Your task to perform on an android device: Go to location settings Image 0: 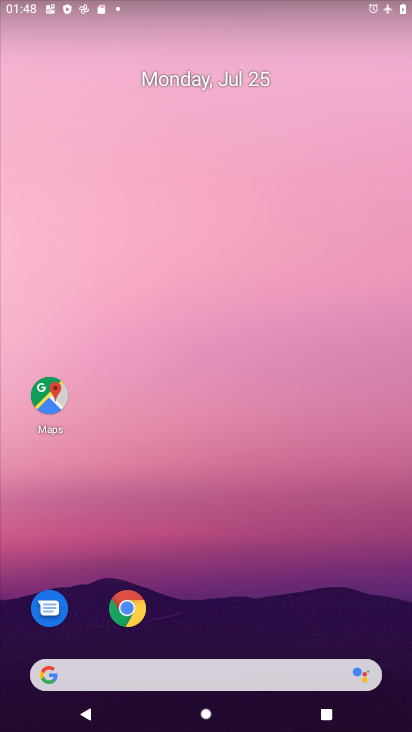
Step 0: drag from (190, 664) to (156, 25)
Your task to perform on an android device: Go to location settings Image 1: 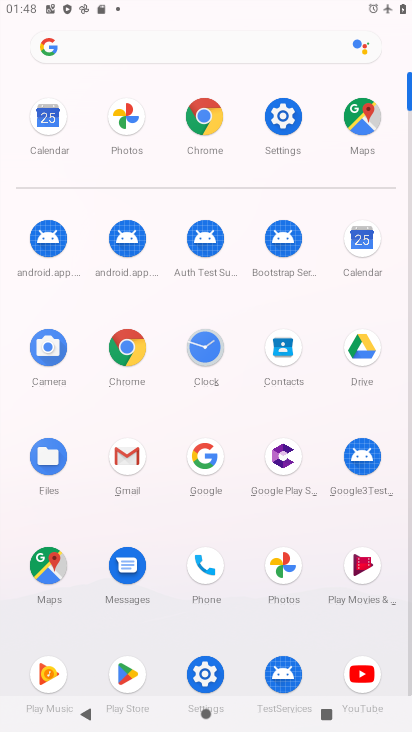
Step 1: click (280, 135)
Your task to perform on an android device: Go to location settings Image 2: 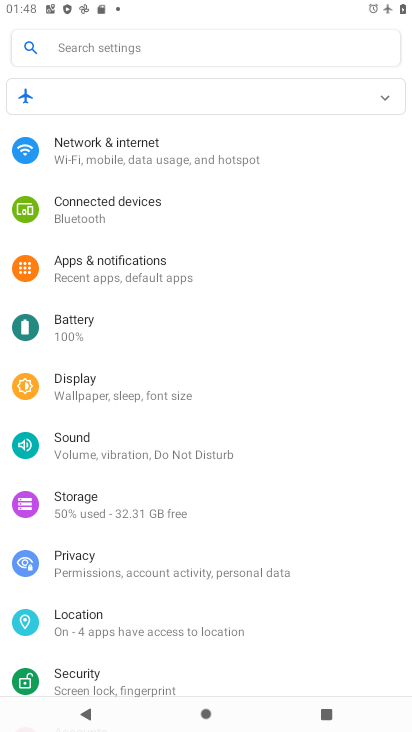
Step 2: click (112, 604)
Your task to perform on an android device: Go to location settings Image 3: 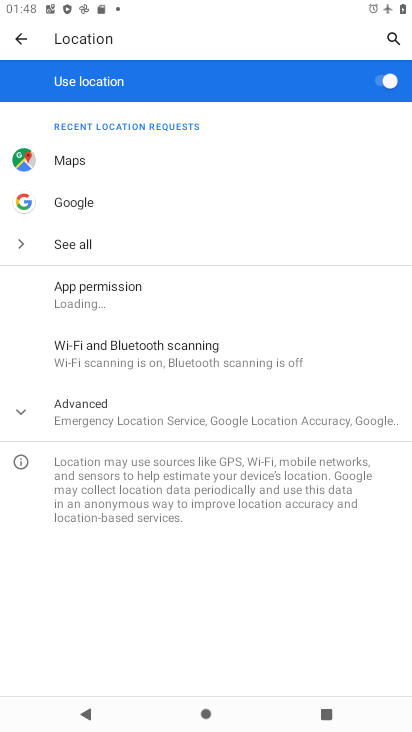
Step 3: click (107, 411)
Your task to perform on an android device: Go to location settings Image 4: 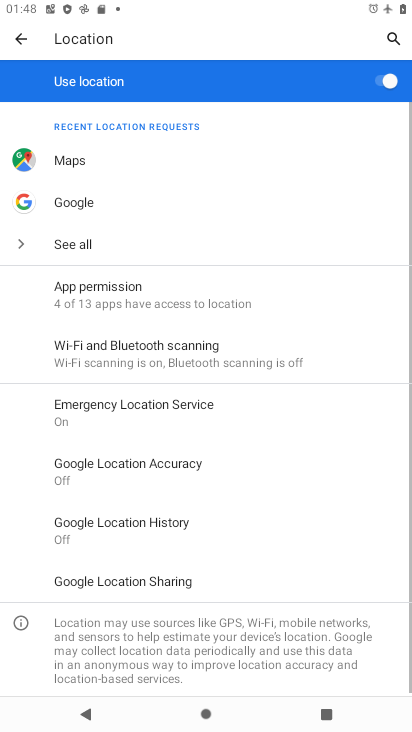
Step 4: task complete